Your task to perform on an android device: change your default location settings in chrome Image 0: 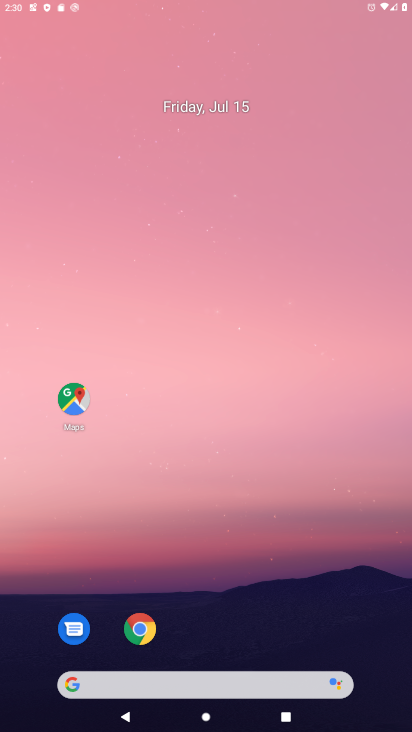
Step 0: click (277, 229)
Your task to perform on an android device: change your default location settings in chrome Image 1: 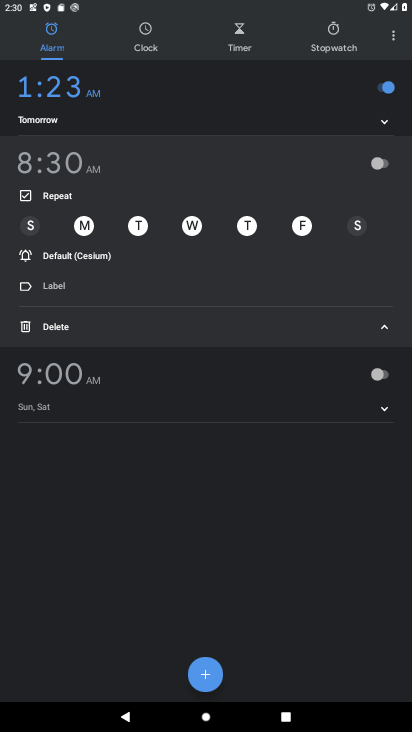
Step 1: press home button
Your task to perform on an android device: change your default location settings in chrome Image 2: 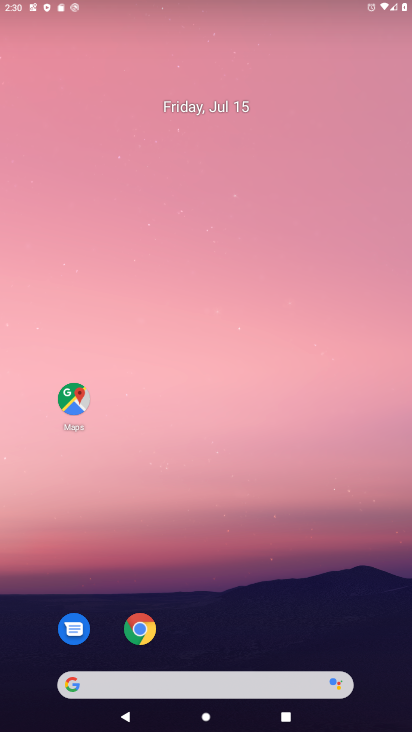
Step 2: drag from (253, 567) to (272, 151)
Your task to perform on an android device: change your default location settings in chrome Image 3: 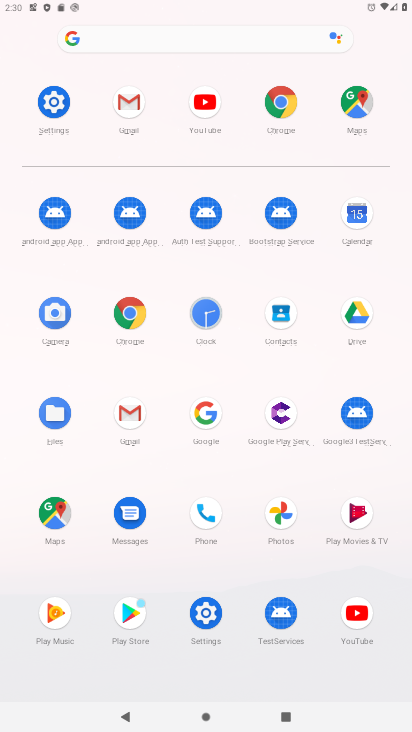
Step 3: click (122, 310)
Your task to perform on an android device: change your default location settings in chrome Image 4: 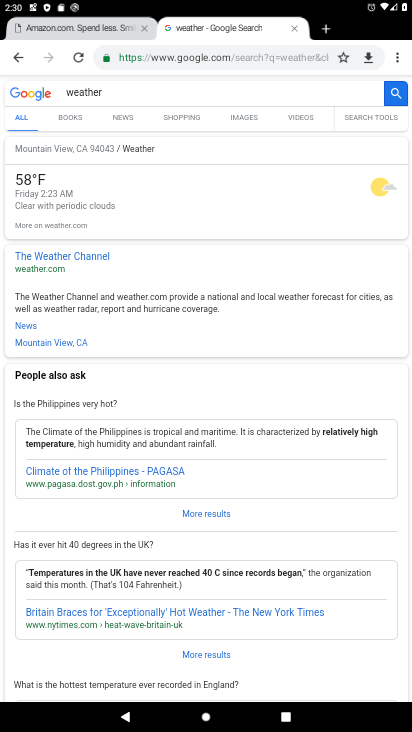
Step 4: drag from (398, 57) to (291, 393)
Your task to perform on an android device: change your default location settings in chrome Image 5: 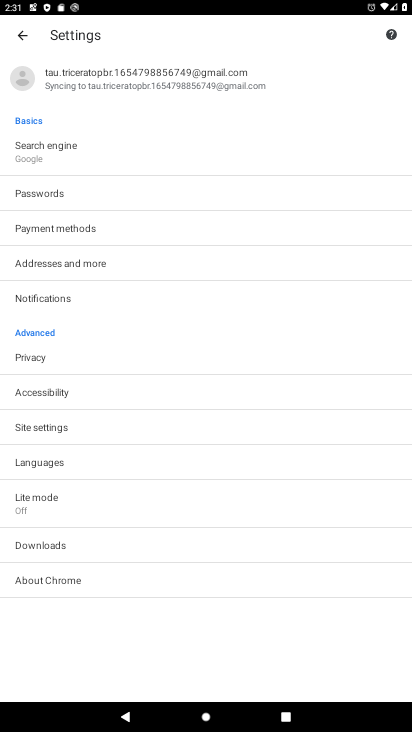
Step 5: drag from (75, 147) to (140, 99)
Your task to perform on an android device: change your default location settings in chrome Image 6: 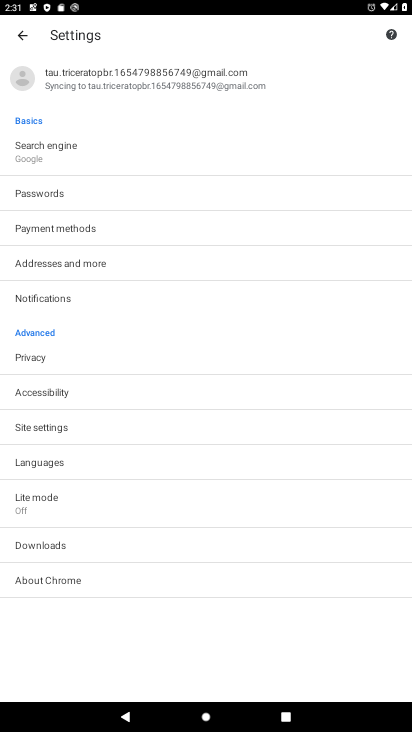
Step 6: click (60, 425)
Your task to perform on an android device: change your default location settings in chrome Image 7: 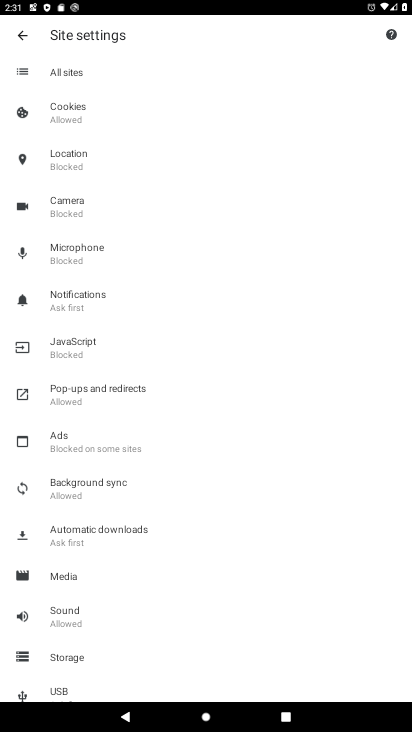
Step 7: click (63, 126)
Your task to perform on an android device: change your default location settings in chrome Image 8: 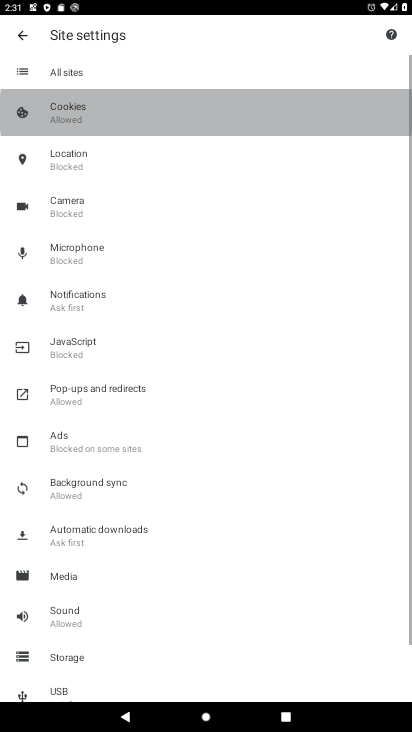
Step 8: click (63, 126)
Your task to perform on an android device: change your default location settings in chrome Image 9: 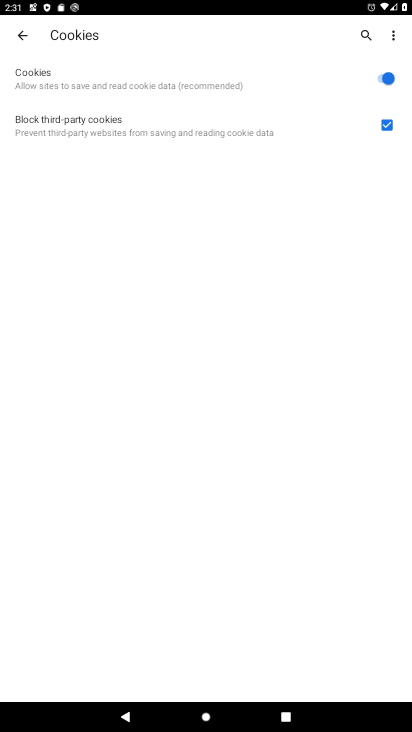
Step 9: task complete